Your task to perform on an android device: What's the weather today? Image 0: 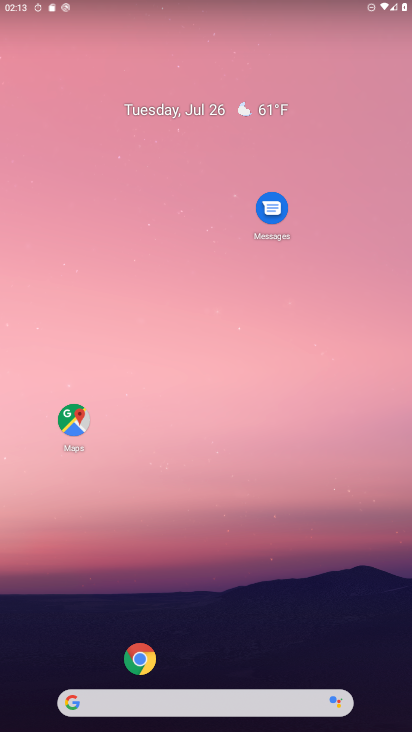
Step 0: click (108, 698)
Your task to perform on an android device: What's the weather today? Image 1: 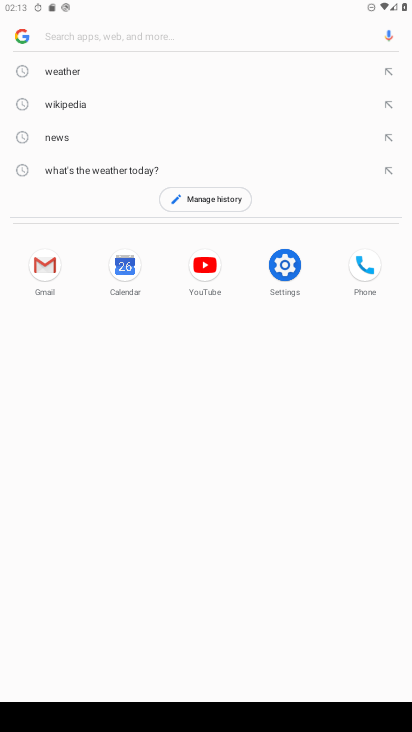
Step 1: type "What's the weather today?"
Your task to perform on an android device: What's the weather today? Image 2: 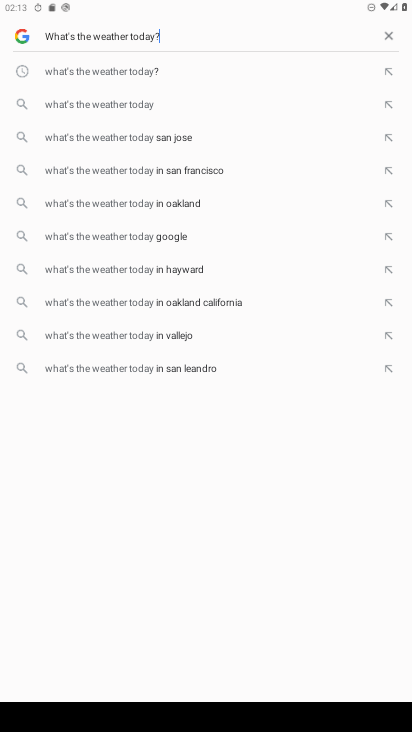
Step 2: type ""
Your task to perform on an android device: What's the weather today? Image 3: 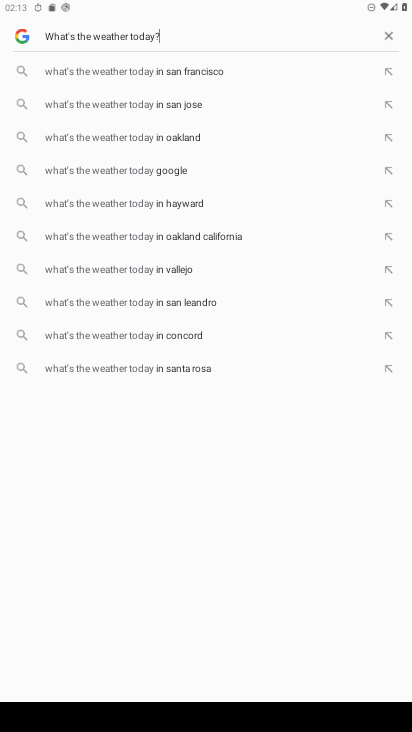
Step 3: type ""
Your task to perform on an android device: What's the weather today? Image 4: 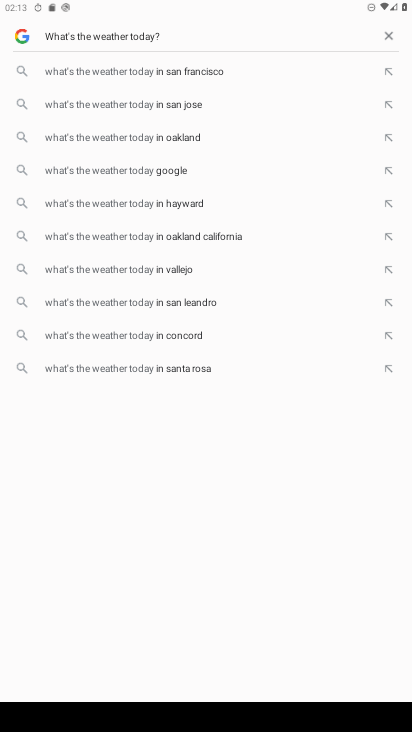
Step 4: type ""
Your task to perform on an android device: What's the weather today? Image 5: 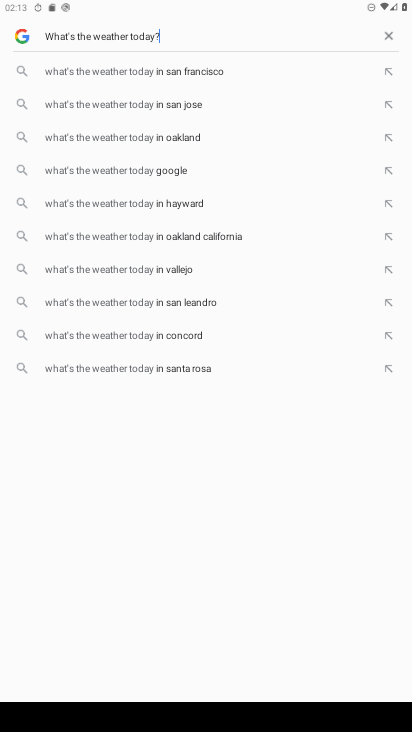
Step 5: type ""
Your task to perform on an android device: What's the weather today? Image 6: 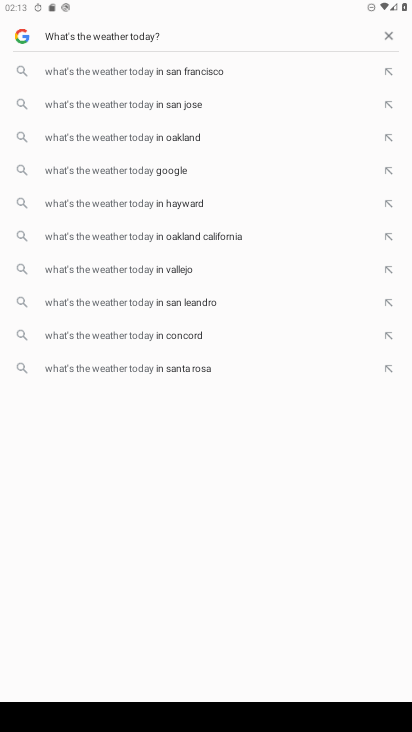
Step 6: type ""
Your task to perform on an android device: What's the weather today? Image 7: 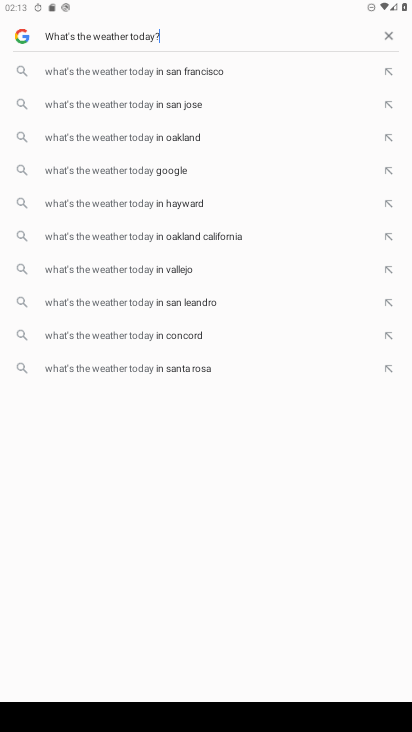
Step 7: task complete